Your task to perform on an android device: Open Reddit.com Image 0: 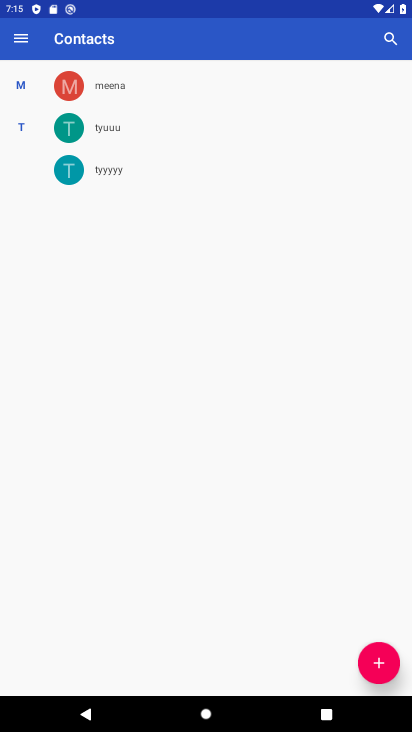
Step 0: press home button
Your task to perform on an android device: Open Reddit.com Image 1: 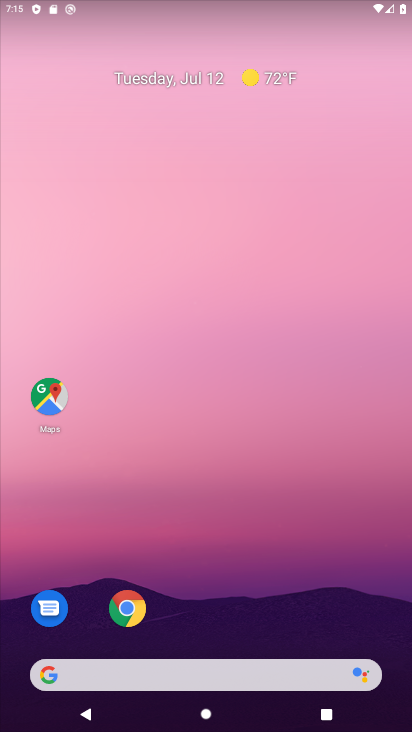
Step 1: click (147, 672)
Your task to perform on an android device: Open Reddit.com Image 2: 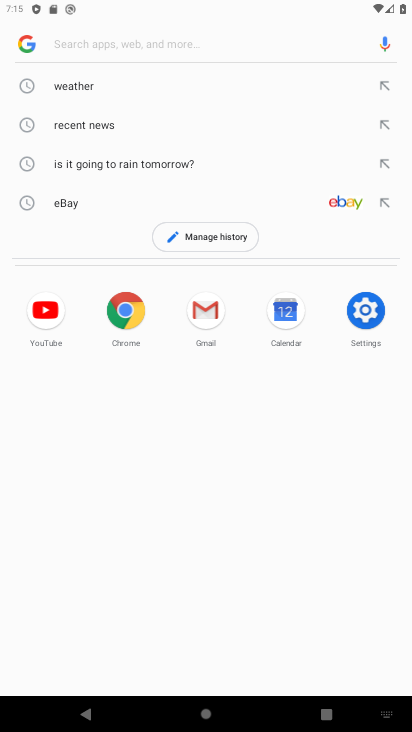
Step 2: type "reddit.com"
Your task to perform on an android device: Open Reddit.com Image 3: 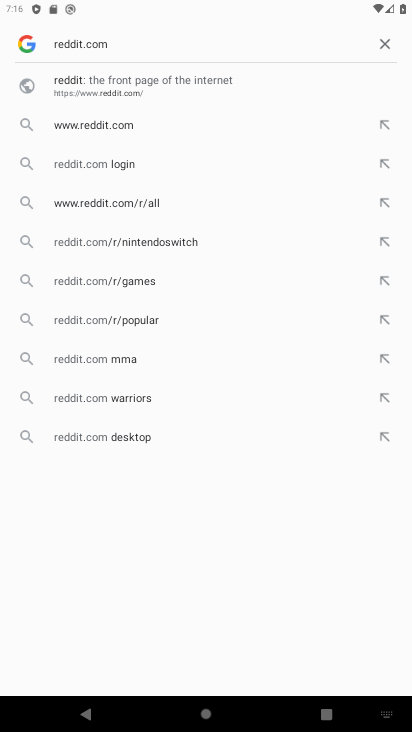
Step 3: click (122, 86)
Your task to perform on an android device: Open Reddit.com Image 4: 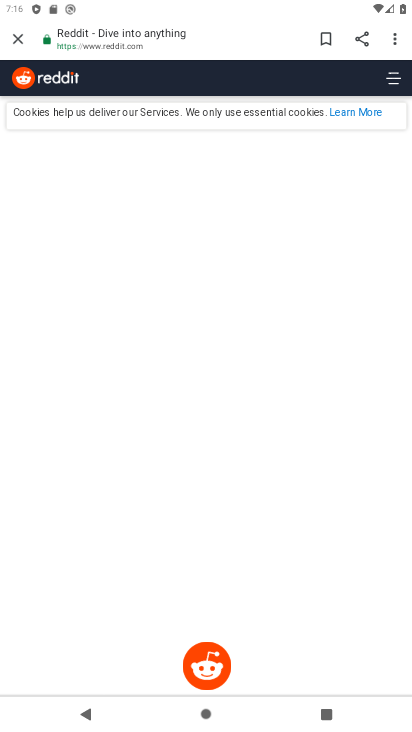
Step 4: task complete